Your task to perform on an android device: Open the web browser Image 0: 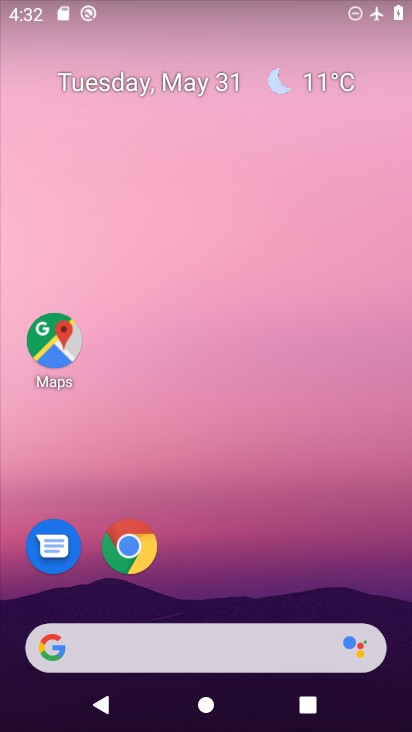
Step 0: click (135, 554)
Your task to perform on an android device: Open the web browser Image 1: 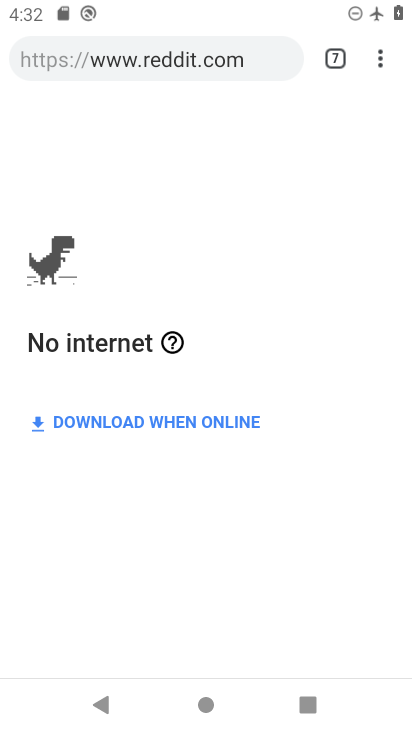
Step 1: task complete